Your task to perform on an android device: Open the stopwatch Image 0: 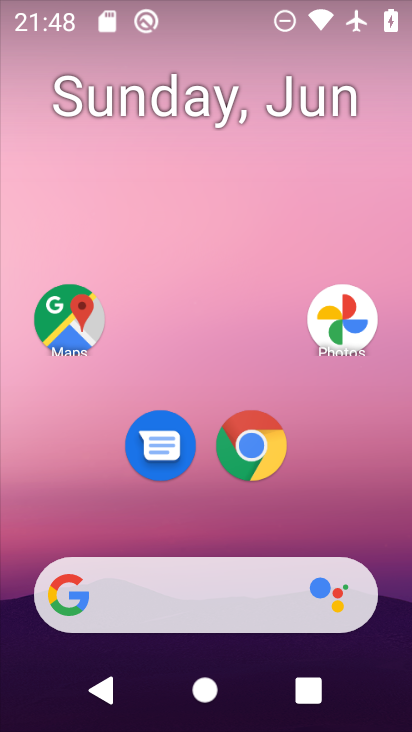
Step 0: press home button
Your task to perform on an android device: Open the stopwatch Image 1: 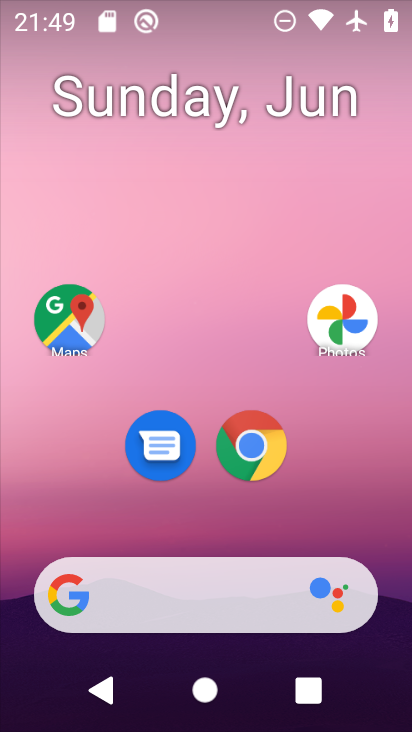
Step 1: drag from (252, 173) to (151, 77)
Your task to perform on an android device: Open the stopwatch Image 2: 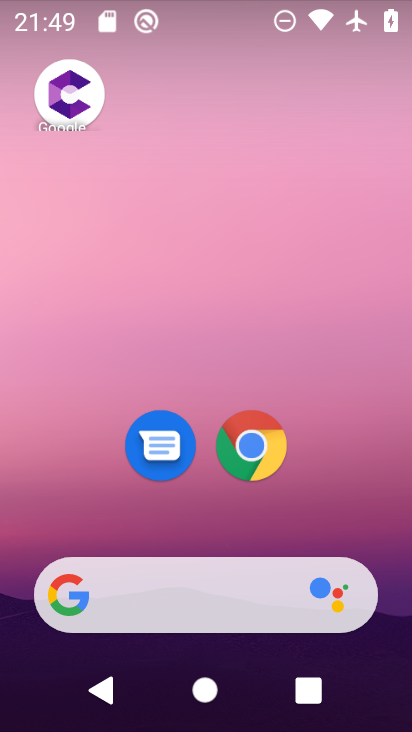
Step 2: drag from (198, 538) to (163, 19)
Your task to perform on an android device: Open the stopwatch Image 3: 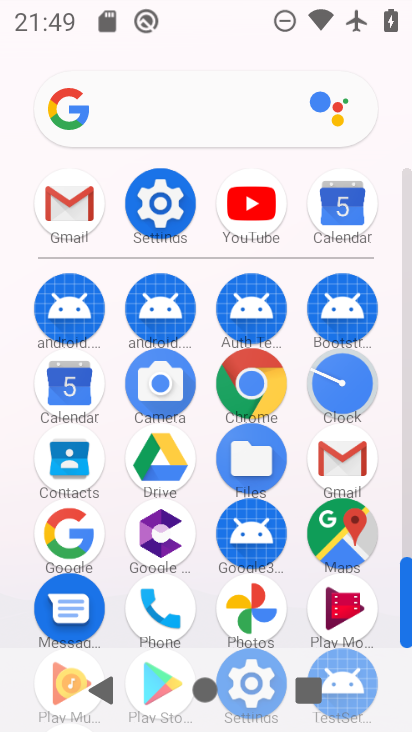
Step 3: click (346, 403)
Your task to perform on an android device: Open the stopwatch Image 4: 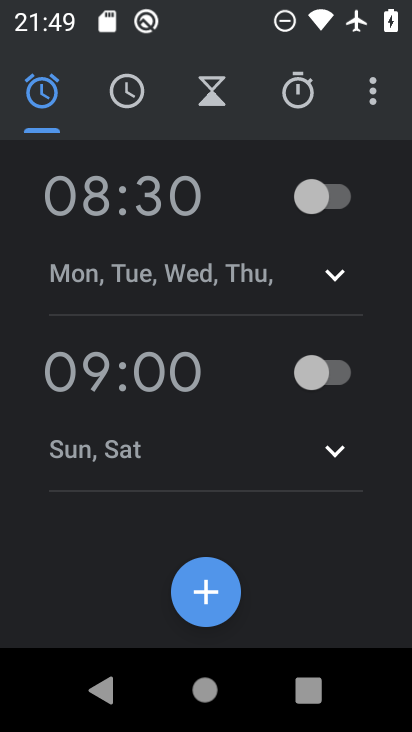
Step 4: click (300, 96)
Your task to perform on an android device: Open the stopwatch Image 5: 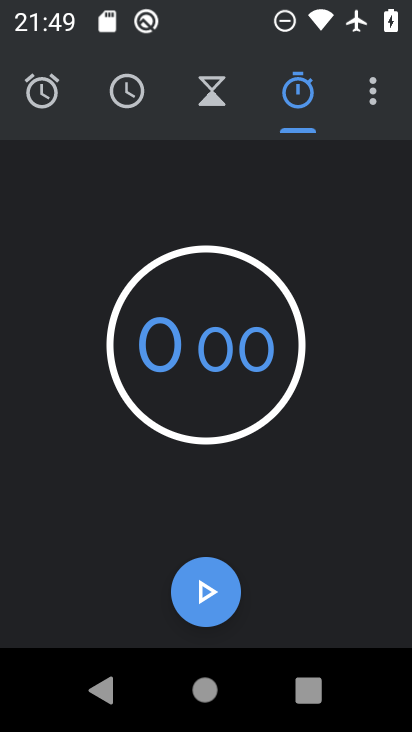
Step 5: task complete